Your task to perform on an android device: see sites visited before in the chrome app Image 0: 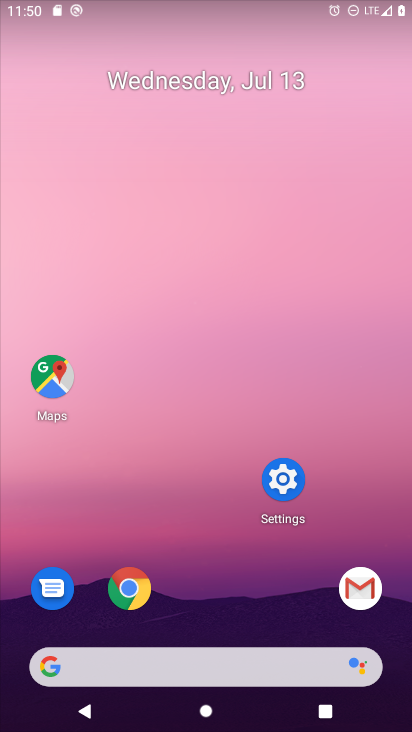
Step 0: press home button
Your task to perform on an android device: see sites visited before in the chrome app Image 1: 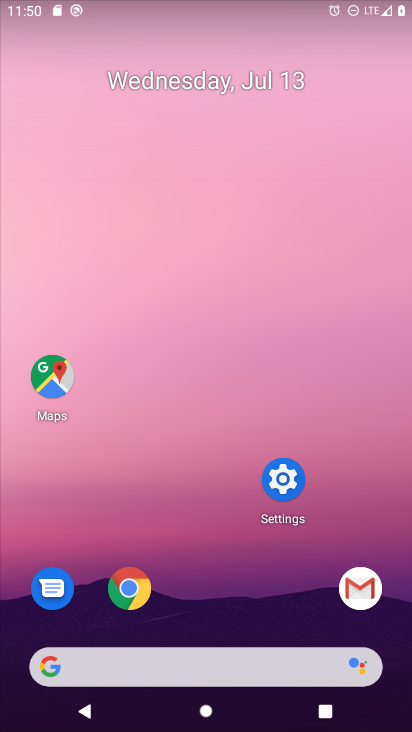
Step 1: click (131, 596)
Your task to perform on an android device: see sites visited before in the chrome app Image 2: 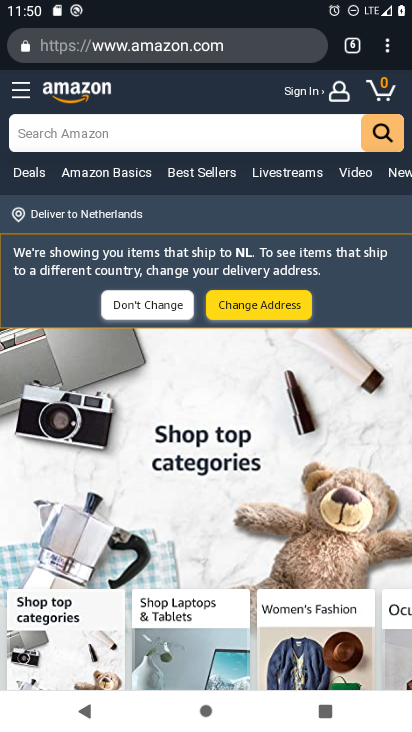
Step 2: click (386, 54)
Your task to perform on an android device: see sites visited before in the chrome app Image 3: 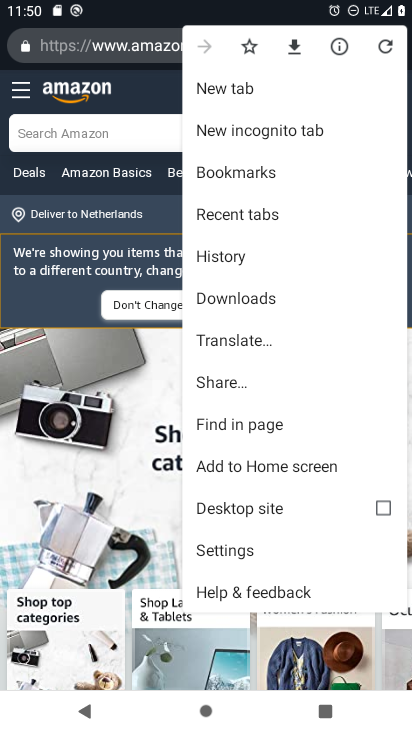
Step 3: click (238, 557)
Your task to perform on an android device: see sites visited before in the chrome app Image 4: 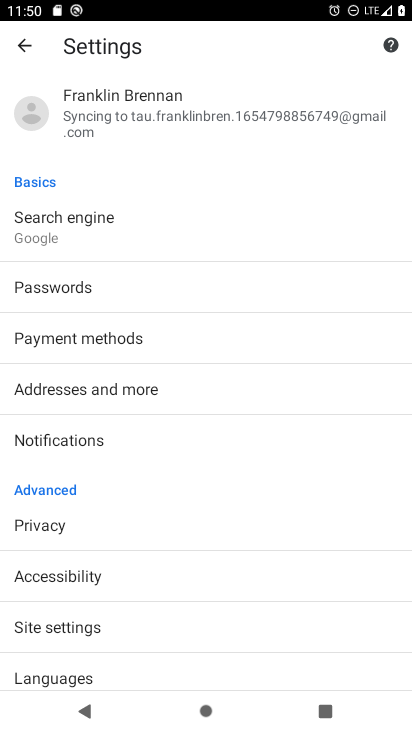
Step 4: click (45, 629)
Your task to perform on an android device: see sites visited before in the chrome app Image 5: 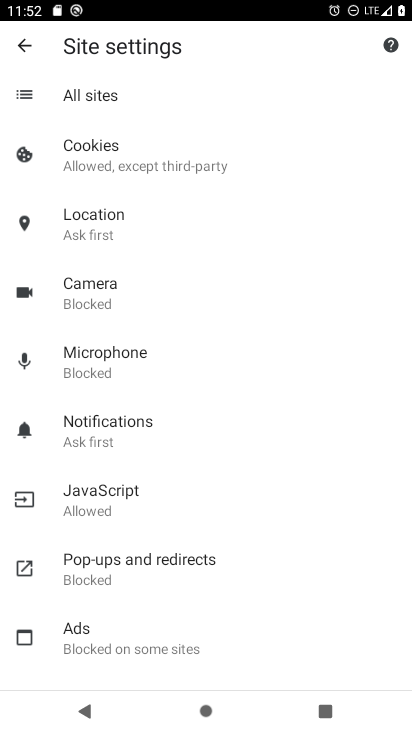
Step 5: task complete